Your task to perform on an android device: set the timer Image 0: 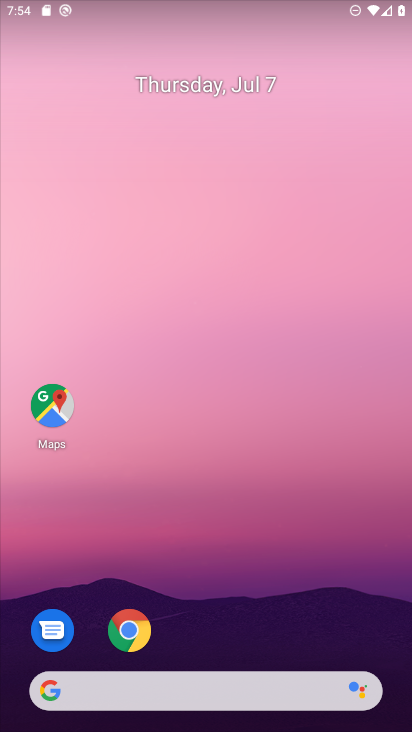
Step 0: drag from (264, 583) to (184, 94)
Your task to perform on an android device: set the timer Image 1: 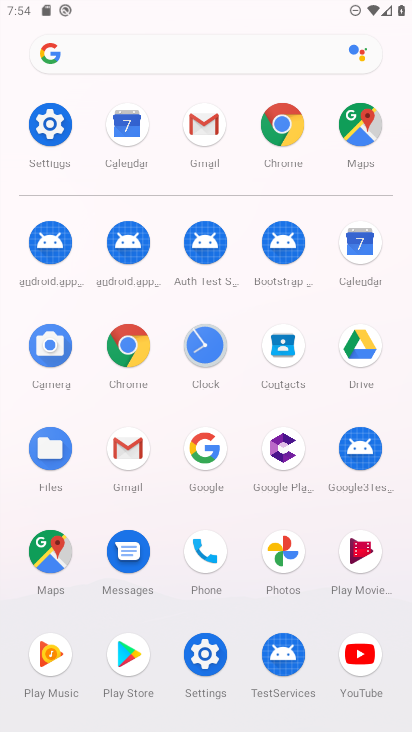
Step 1: click (211, 343)
Your task to perform on an android device: set the timer Image 2: 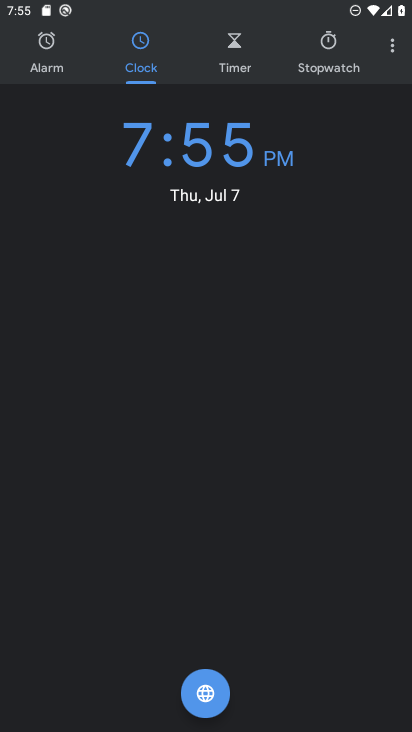
Step 2: click (234, 41)
Your task to perform on an android device: set the timer Image 3: 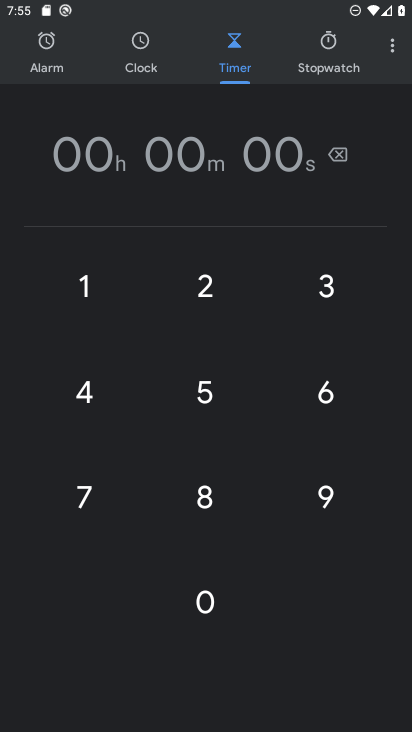
Step 3: click (92, 286)
Your task to perform on an android device: set the timer Image 4: 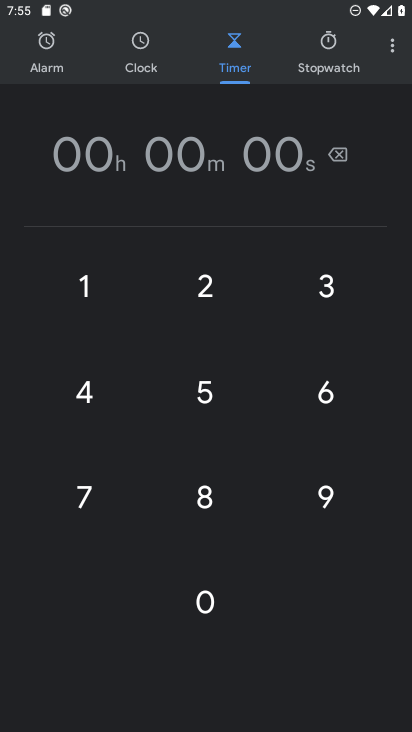
Step 4: click (92, 286)
Your task to perform on an android device: set the timer Image 5: 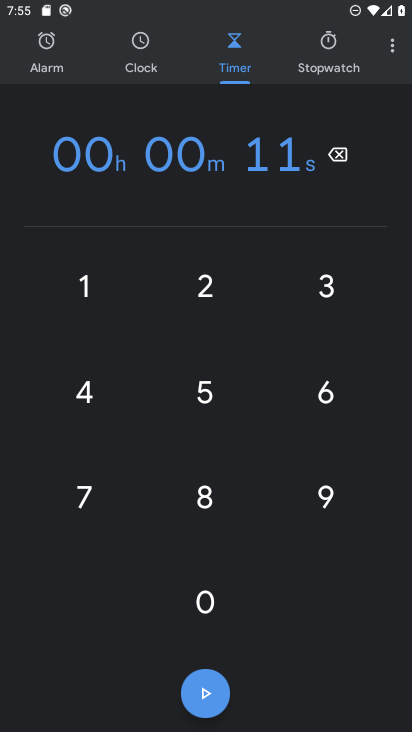
Step 5: click (82, 287)
Your task to perform on an android device: set the timer Image 6: 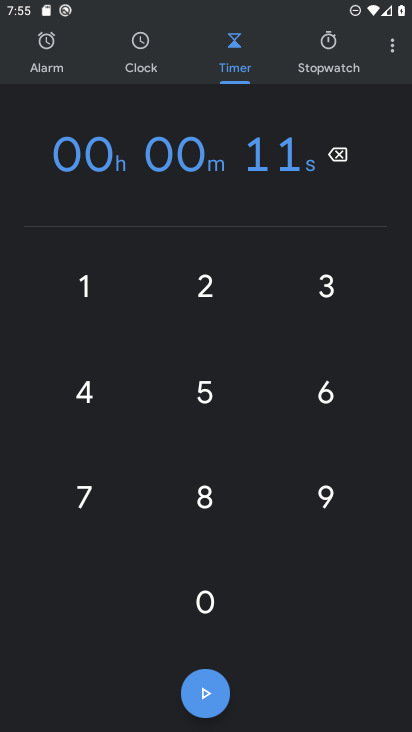
Step 6: click (82, 287)
Your task to perform on an android device: set the timer Image 7: 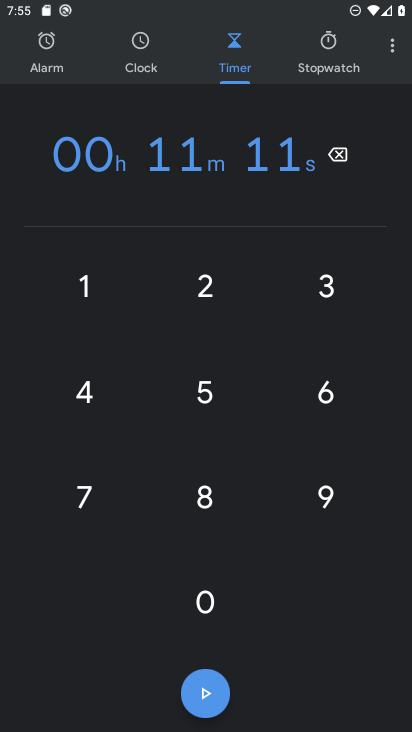
Step 7: click (82, 287)
Your task to perform on an android device: set the timer Image 8: 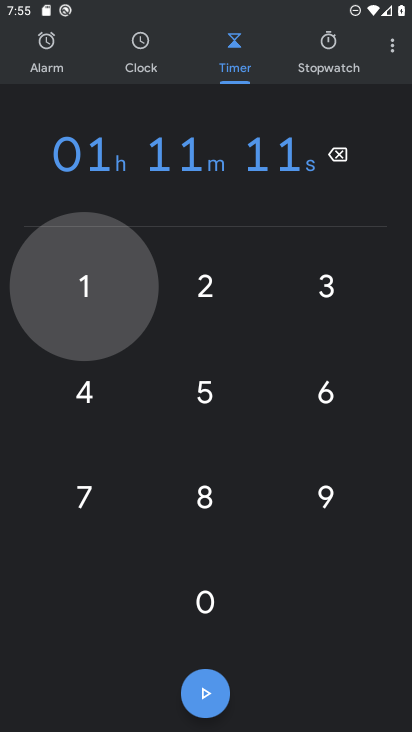
Step 8: click (82, 287)
Your task to perform on an android device: set the timer Image 9: 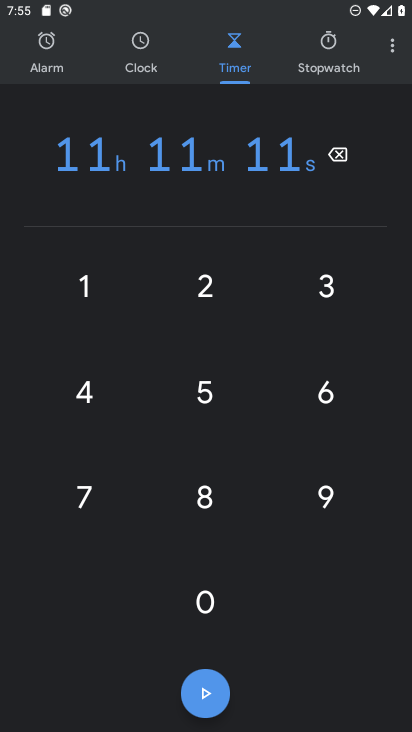
Step 9: task complete